Your task to perform on an android device: Open eBay Image 0: 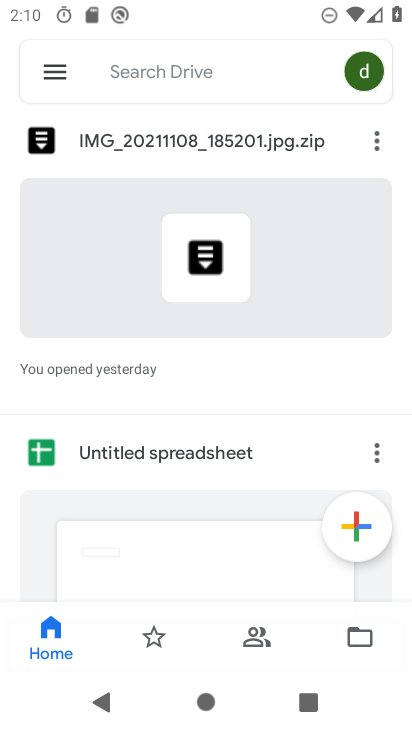
Step 0: press home button
Your task to perform on an android device: Open eBay Image 1: 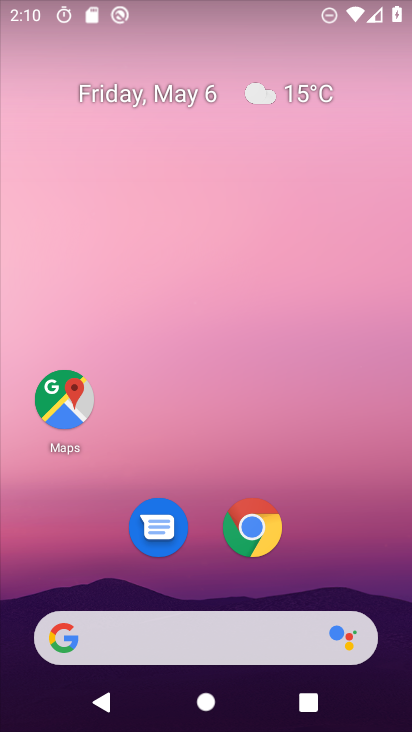
Step 1: drag from (357, 592) to (126, 104)
Your task to perform on an android device: Open eBay Image 2: 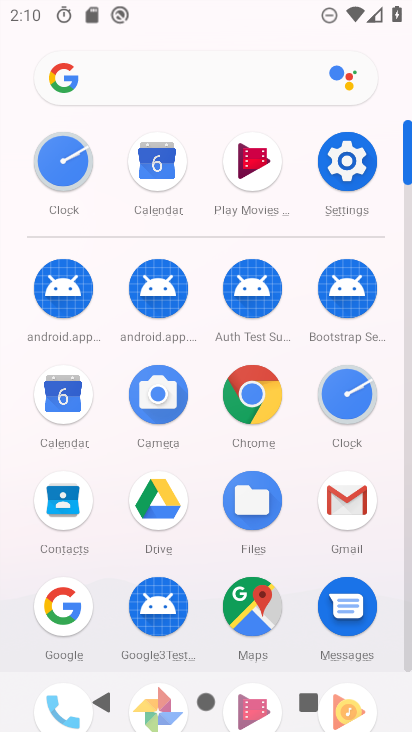
Step 2: click (250, 406)
Your task to perform on an android device: Open eBay Image 3: 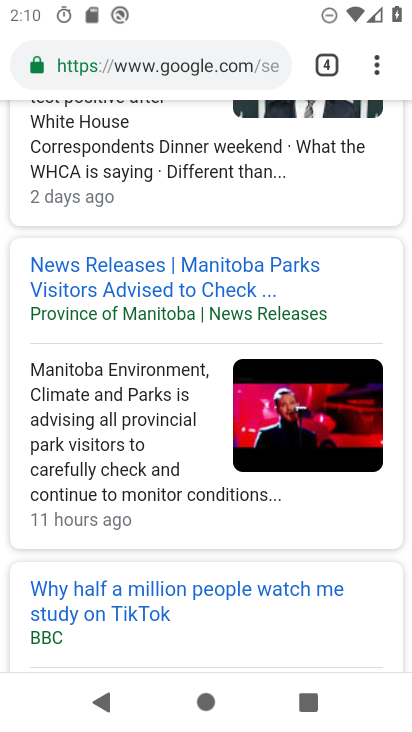
Step 3: click (326, 70)
Your task to perform on an android device: Open eBay Image 4: 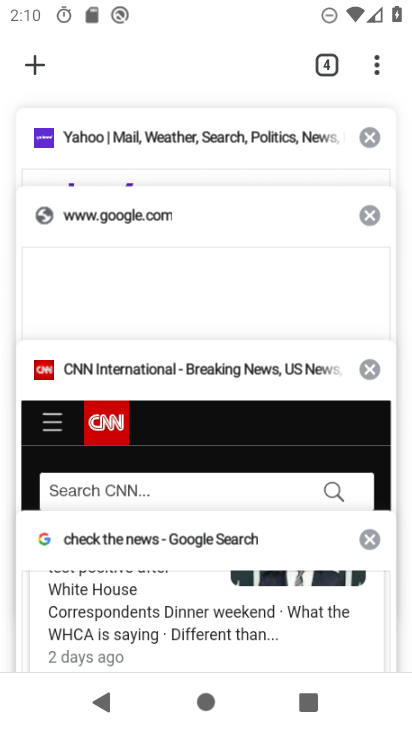
Step 4: click (32, 59)
Your task to perform on an android device: Open eBay Image 5: 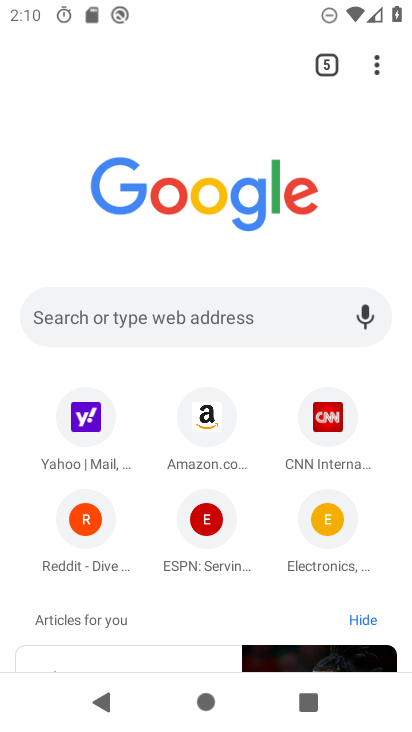
Step 5: click (260, 311)
Your task to perform on an android device: Open eBay Image 6: 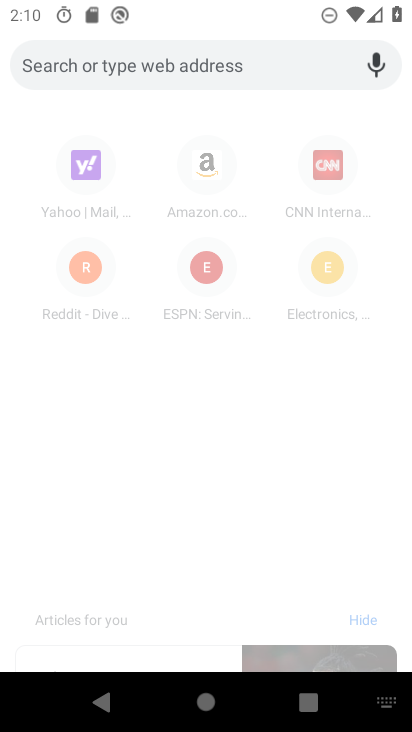
Step 6: type "ebay"
Your task to perform on an android device: Open eBay Image 7: 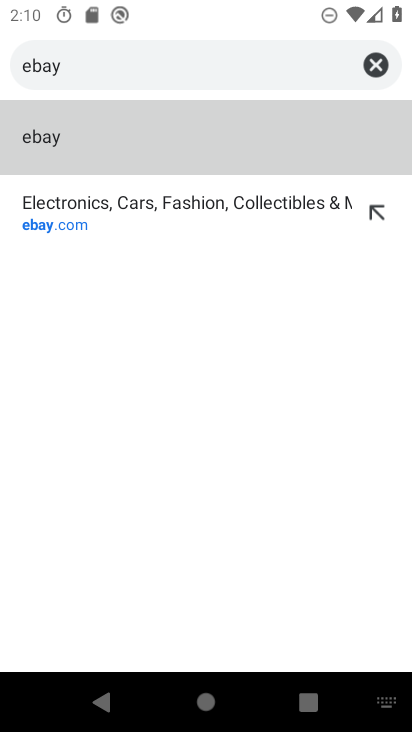
Step 7: click (56, 202)
Your task to perform on an android device: Open eBay Image 8: 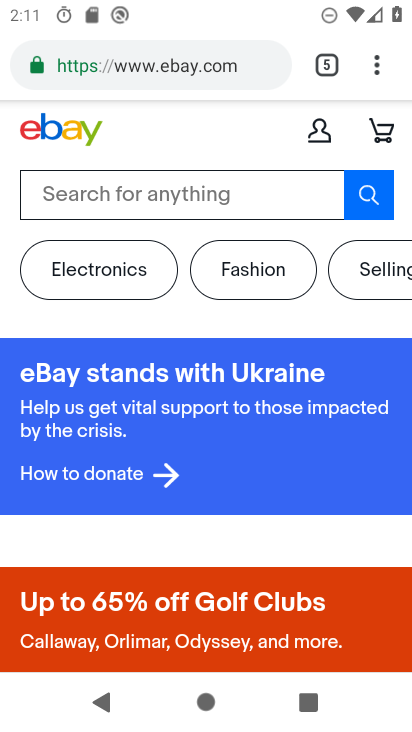
Step 8: task complete